Your task to perform on an android device: toggle airplane mode Image 0: 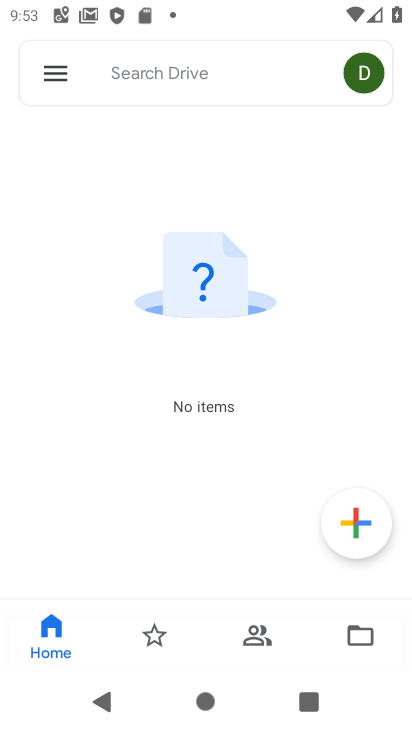
Step 0: drag from (183, 8) to (369, 265)
Your task to perform on an android device: toggle airplane mode Image 1: 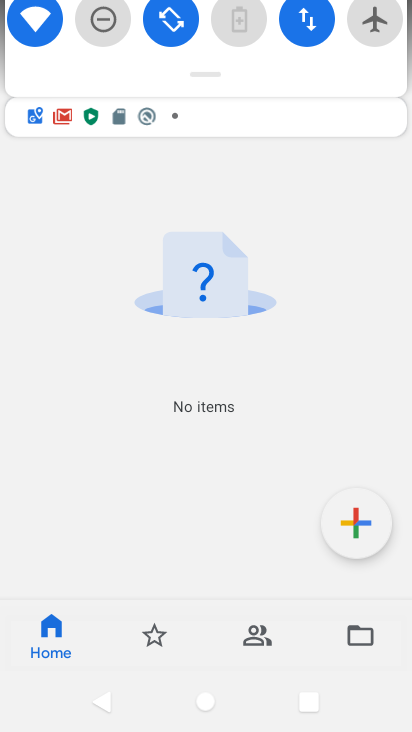
Step 1: click (369, 265)
Your task to perform on an android device: toggle airplane mode Image 2: 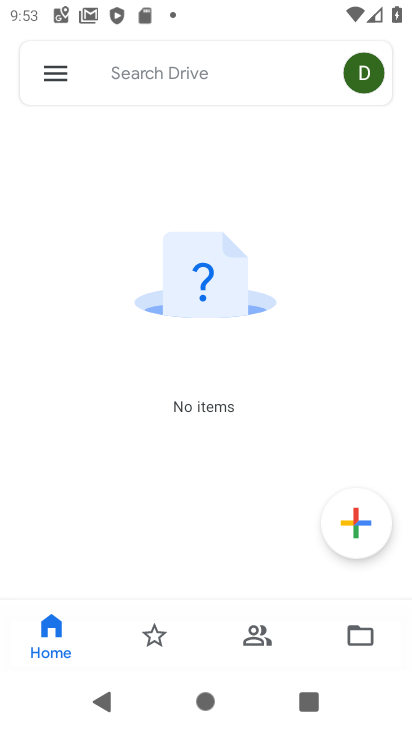
Step 2: drag from (269, 13) to (198, 521)
Your task to perform on an android device: toggle airplane mode Image 3: 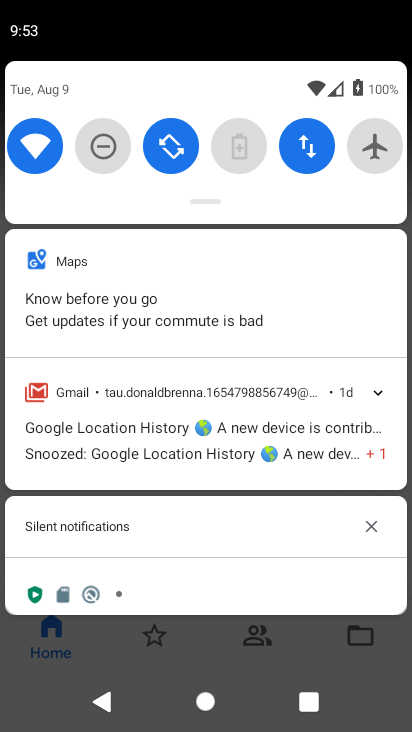
Step 3: click (383, 132)
Your task to perform on an android device: toggle airplane mode Image 4: 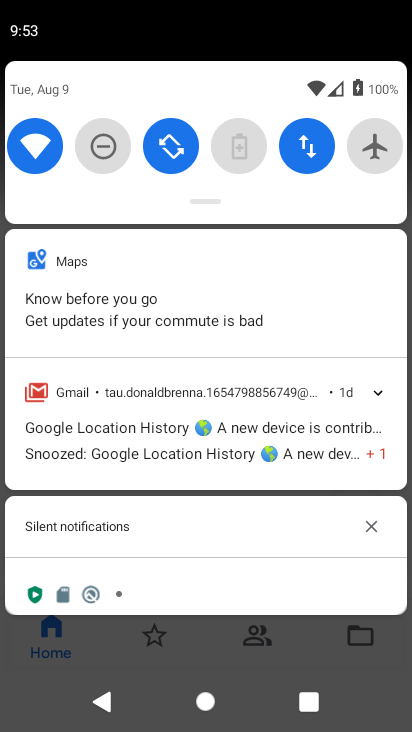
Step 4: click (383, 132)
Your task to perform on an android device: toggle airplane mode Image 5: 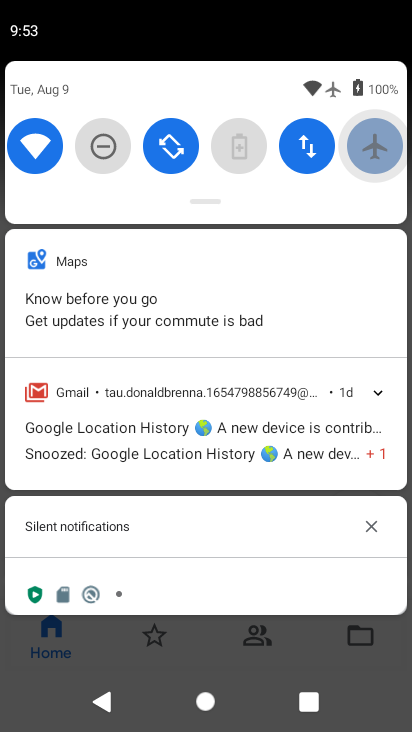
Step 5: click (383, 132)
Your task to perform on an android device: toggle airplane mode Image 6: 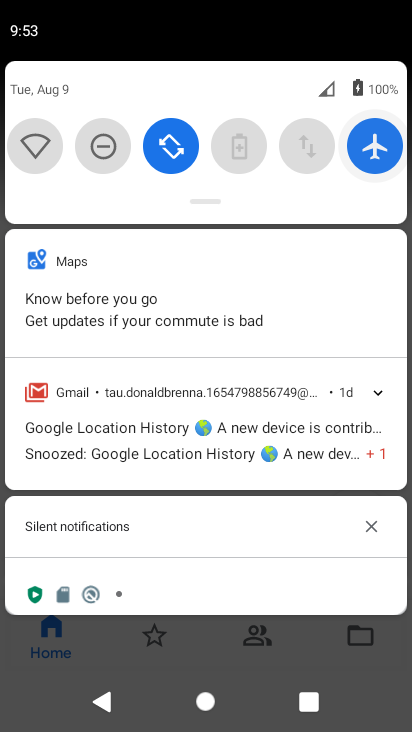
Step 6: click (383, 132)
Your task to perform on an android device: toggle airplane mode Image 7: 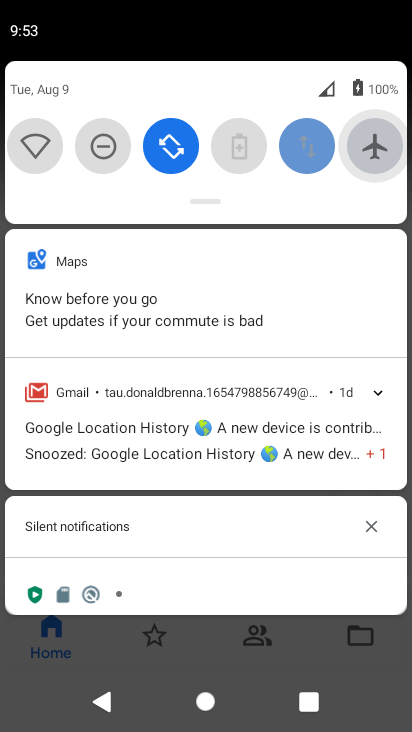
Step 7: click (383, 132)
Your task to perform on an android device: toggle airplane mode Image 8: 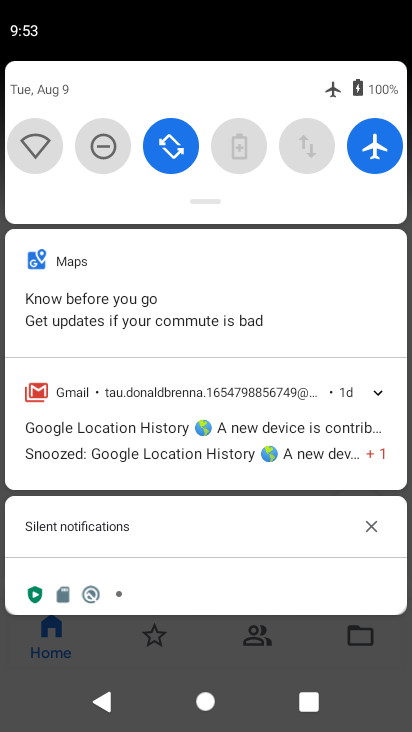
Step 8: click (383, 132)
Your task to perform on an android device: toggle airplane mode Image 9: 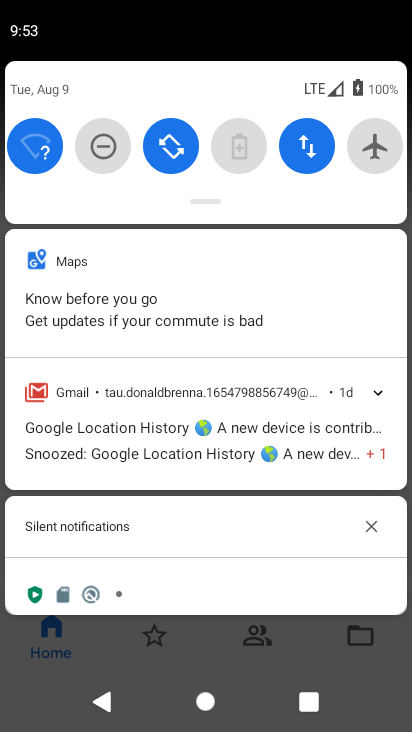
Step 9: task complete